Your task to perform on an android device: What's on my calendar tomorrow? Image 0: 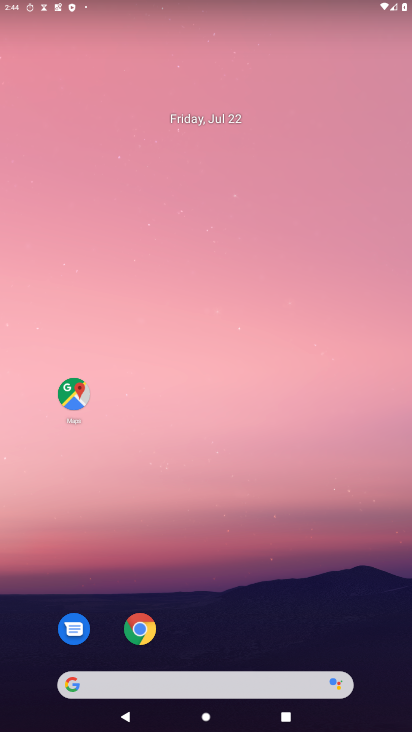
Step 0: drag from (261, 521) to (321, 6)
Your task to perform on an android device: What's on my calendar tomorrow? Image 1: 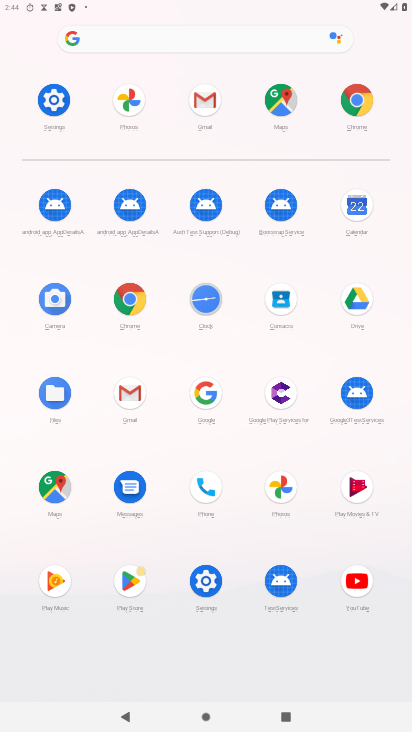
Step 1: click (357, 204)
Your task to perform on an android device: What's on my calendar tomorrow? Image 2: 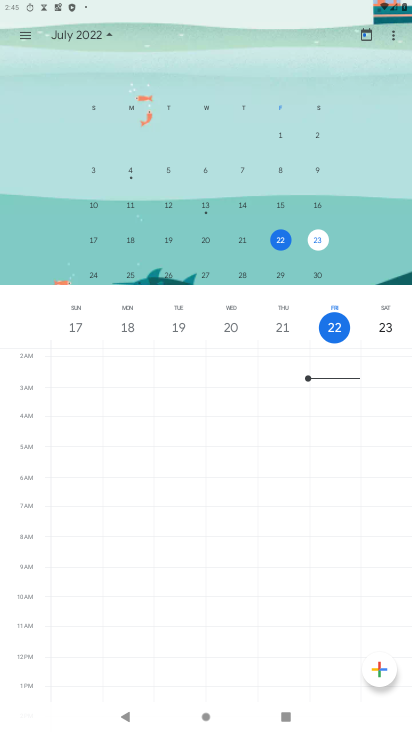
Step 2: task complete